Your task to perform on an android device: Open ESPN.com Image 0: 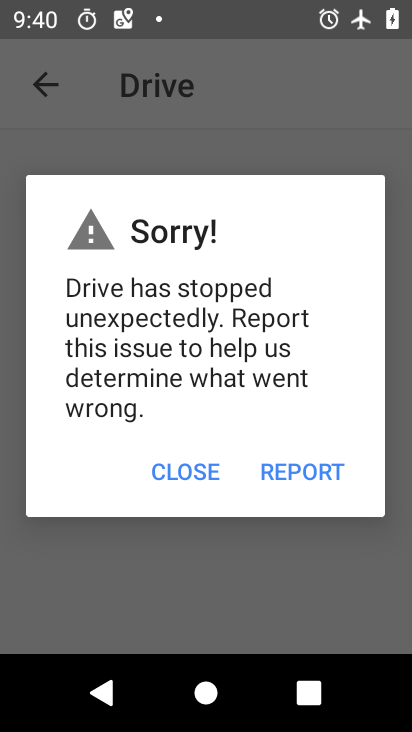
Step 0: press home button
Your task to perform on an android device: Open ESPN.com Image 1: 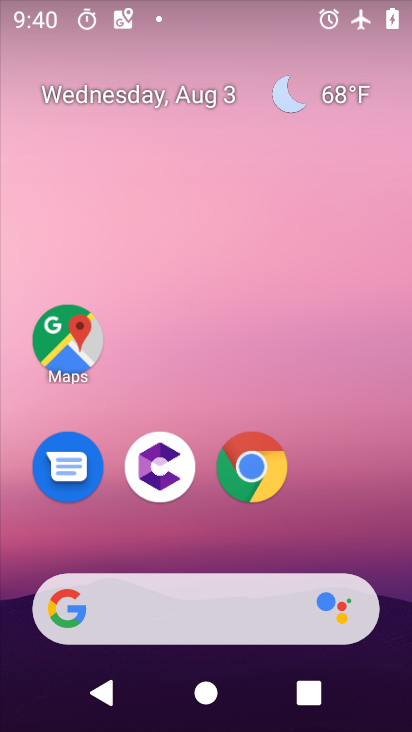
Step 1: drag from (331, 529) to (234, 143)
Your task to perform on an android device: Open ESPN.com Image 2: 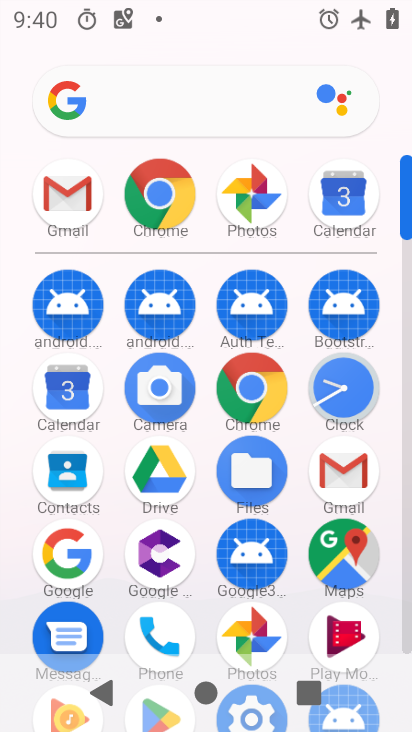
Step 2: click (256, 386)
Your task to perform on an android device: Open ESPN.com Image 3: 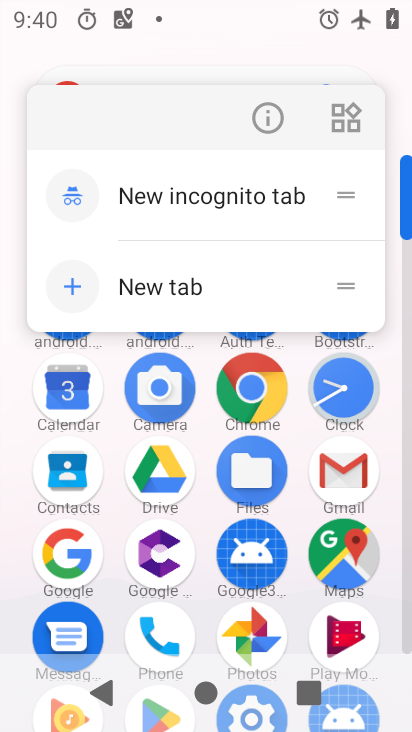
Step 3: click (255, 388)
Your task to perform on an android device: Open ESPN.com Image 4: 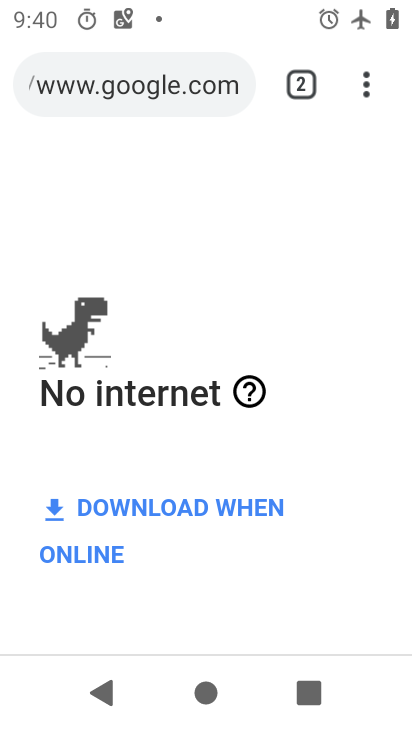
Step 4: click (205, 84)
Your task to perform on an android device: Open ESPN.com Image 5: 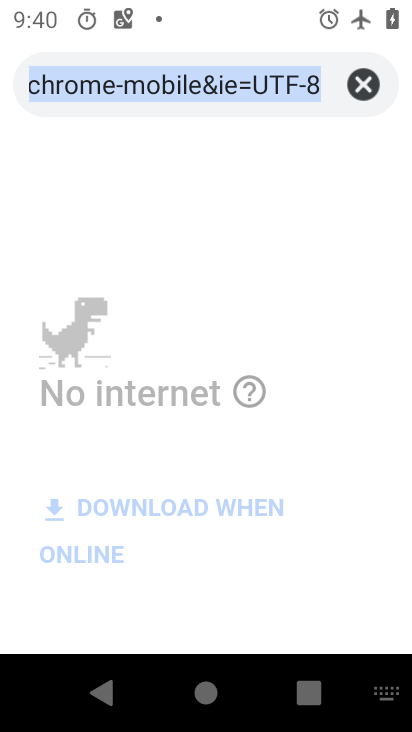
Step 5: type ""
Your task to perform on an android device: Open ESPN.com Image 6: 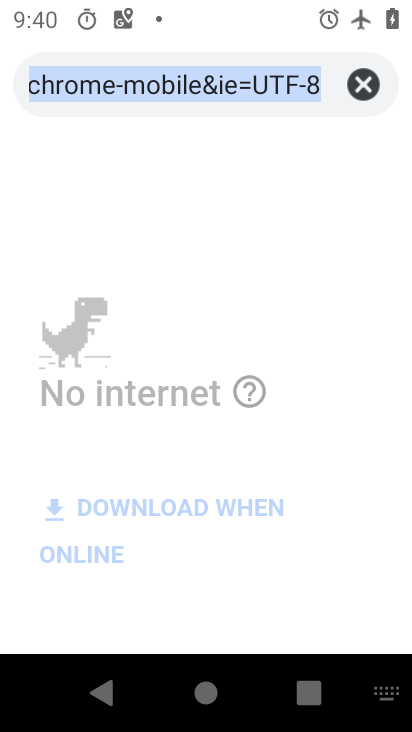
Step 6: type "espn.com"
Your task to perform on an android device: Open ESPN.com Image 7: 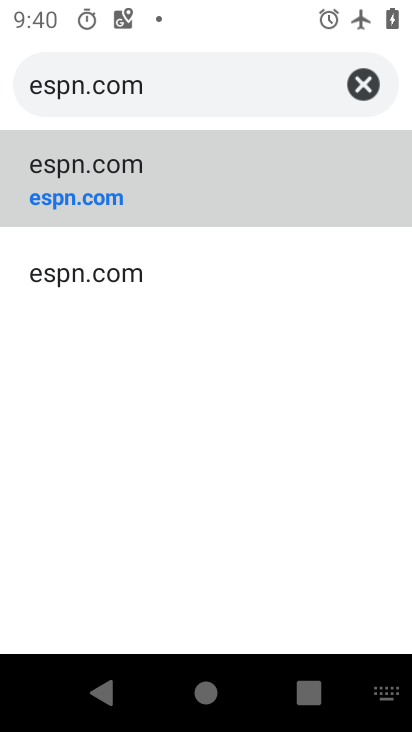
Step 7: click (68, 182)
Your task to perform on an android device: Open ESPN.com Image 8: 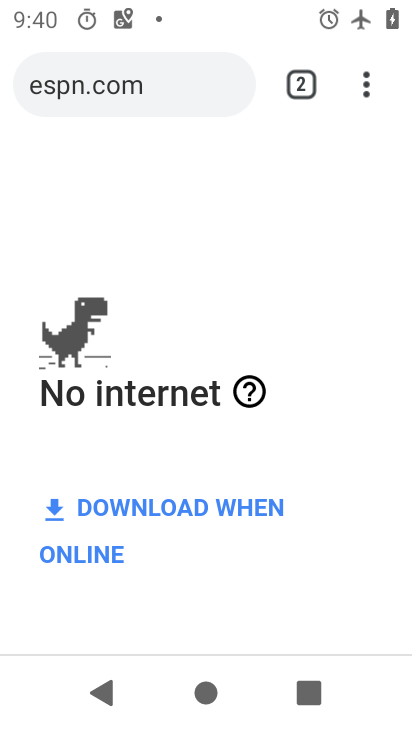
Step 8: task complete